Your task to perform on an android device: Go to display settings Image 0: 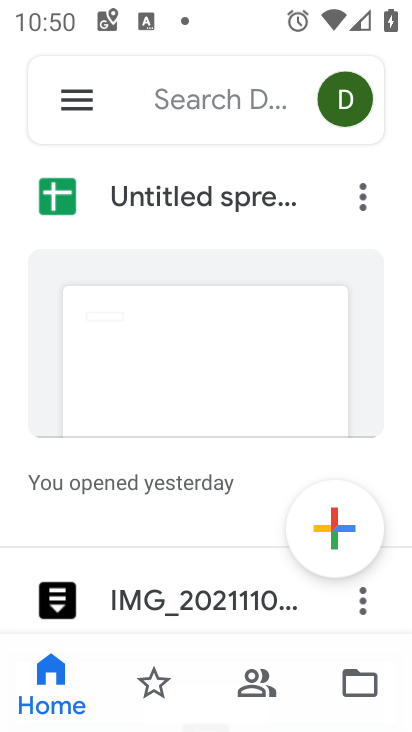
Step 0: press home button
Your task to perform on an android device: Go to display settings Image 1: 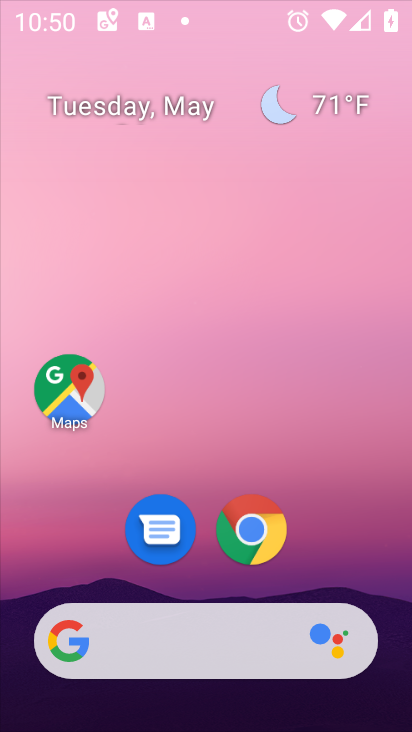
Step 1: drag from (206, 640) to (206, 12)
Your task to perform on an android device: Go to display settings Image 2: 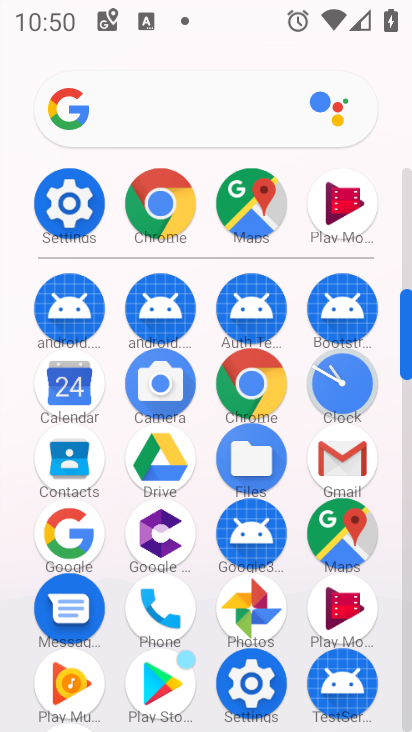
Step 2: click (246, 700)
Your task to perform on an android device: Go to display settings Image 3: 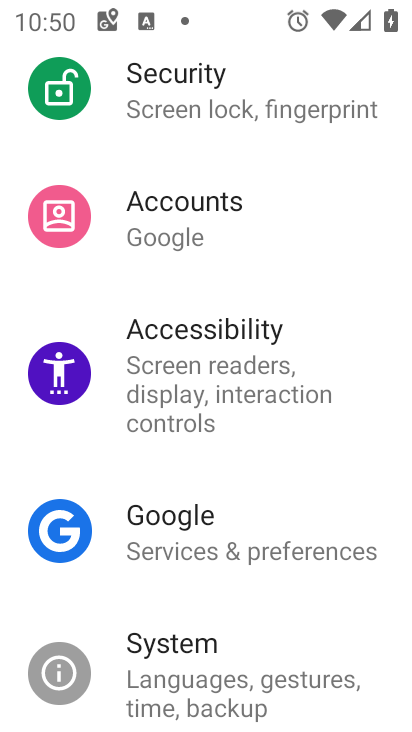
Step 3: drag from (235, 235) to (196, 650)
Your task to perform on an android device: Go to display settings Image 4: 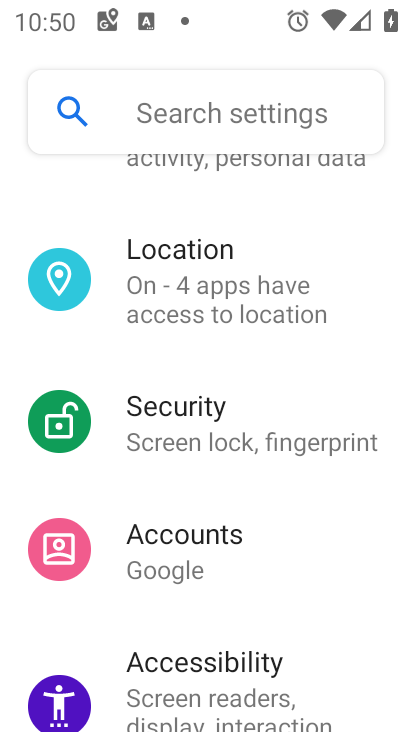
Step 4: drag from (195, 524) to (330, 302)
Your task to perform on an android device: Go to display settings Image 5: 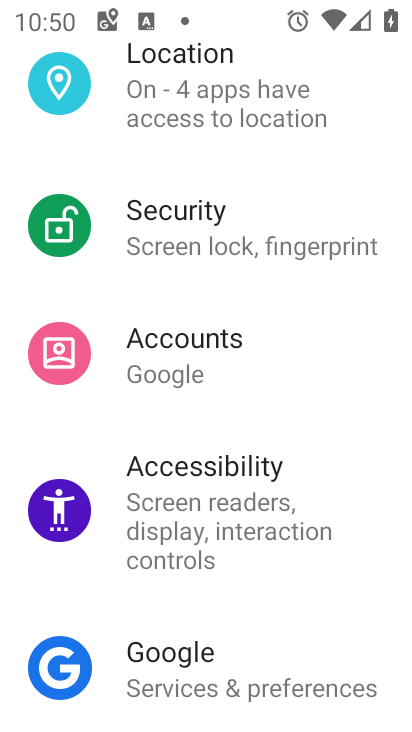
Step 5: drag from (255, 388) to (229, 584)
Your task to perform on an android device: Go to display settings Image 6: 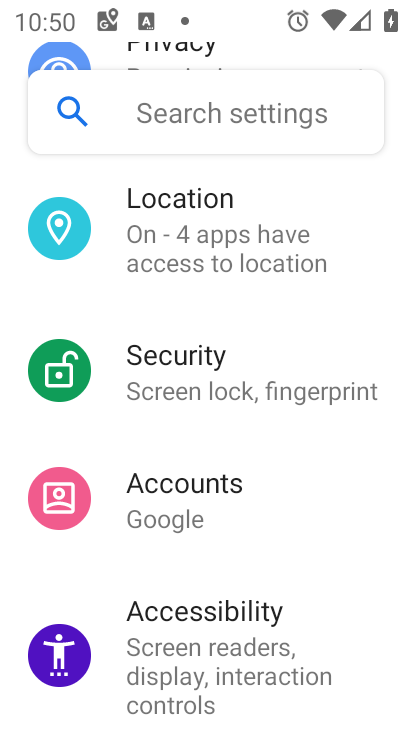
Step 6: drag from (243, 304) to (198, 644)
Your task to perform on an android device: Go to display settings Image 7: 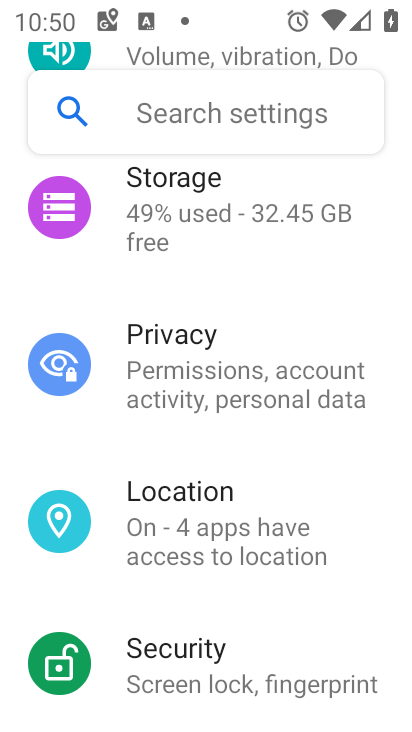
Step 7: drag from (213, 295) to (197, 562)
Your task to perform on an android device: Go to display settings Image 8: 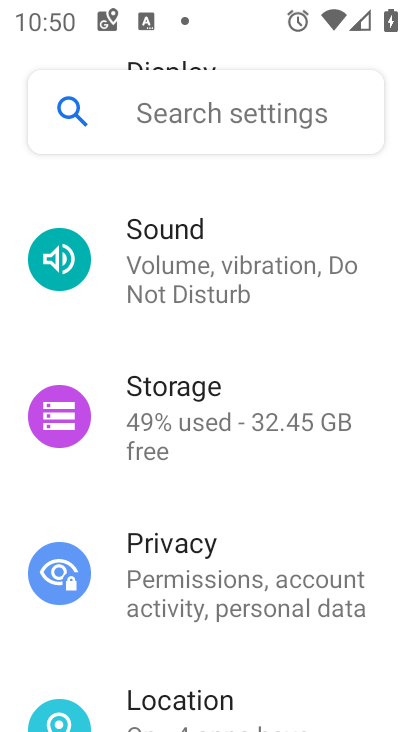
Step 8: drag from (212, 349) to (185, 585)
Your task to perform on an android device: Go to display settings Image 9: 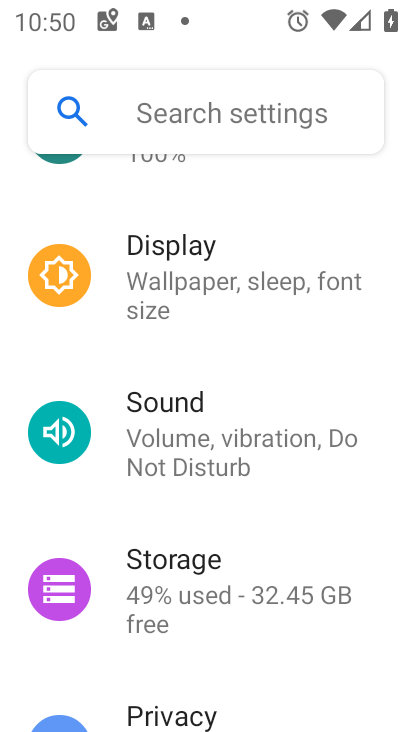
Step 9: click (209, 301)
Your task to perform on an android device: Go to display settings Image 10: 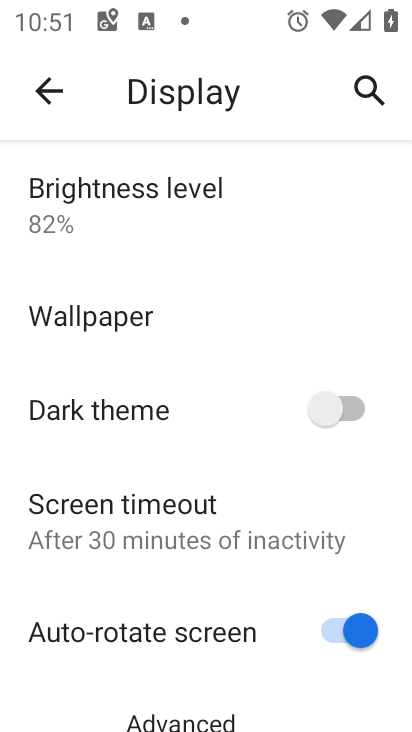
Step 10: task complete